Your task to perform on an android device: Go to settings Image 0: 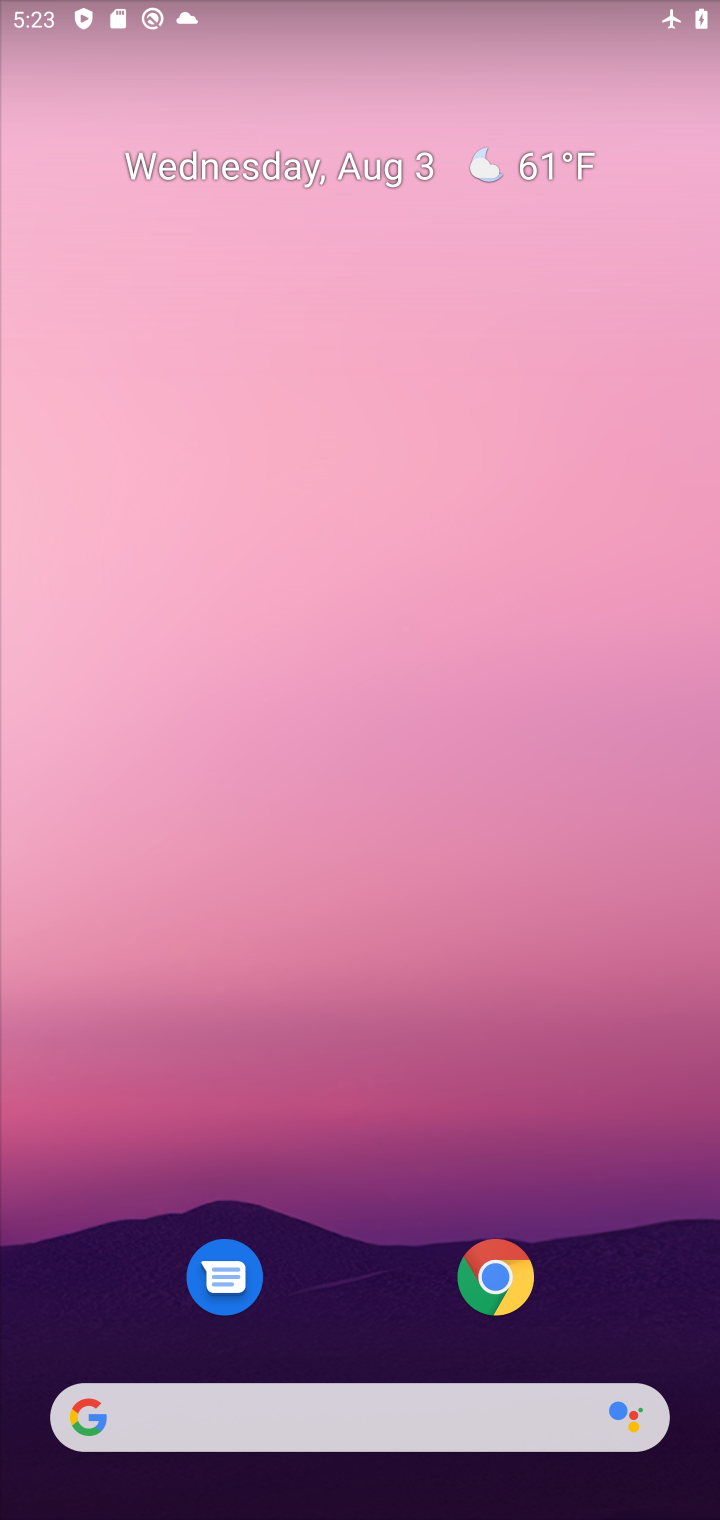
Step 0: drag from (355, 1088) to (463, 136)
Your task to perform on an android device: Go to settings Image 1: 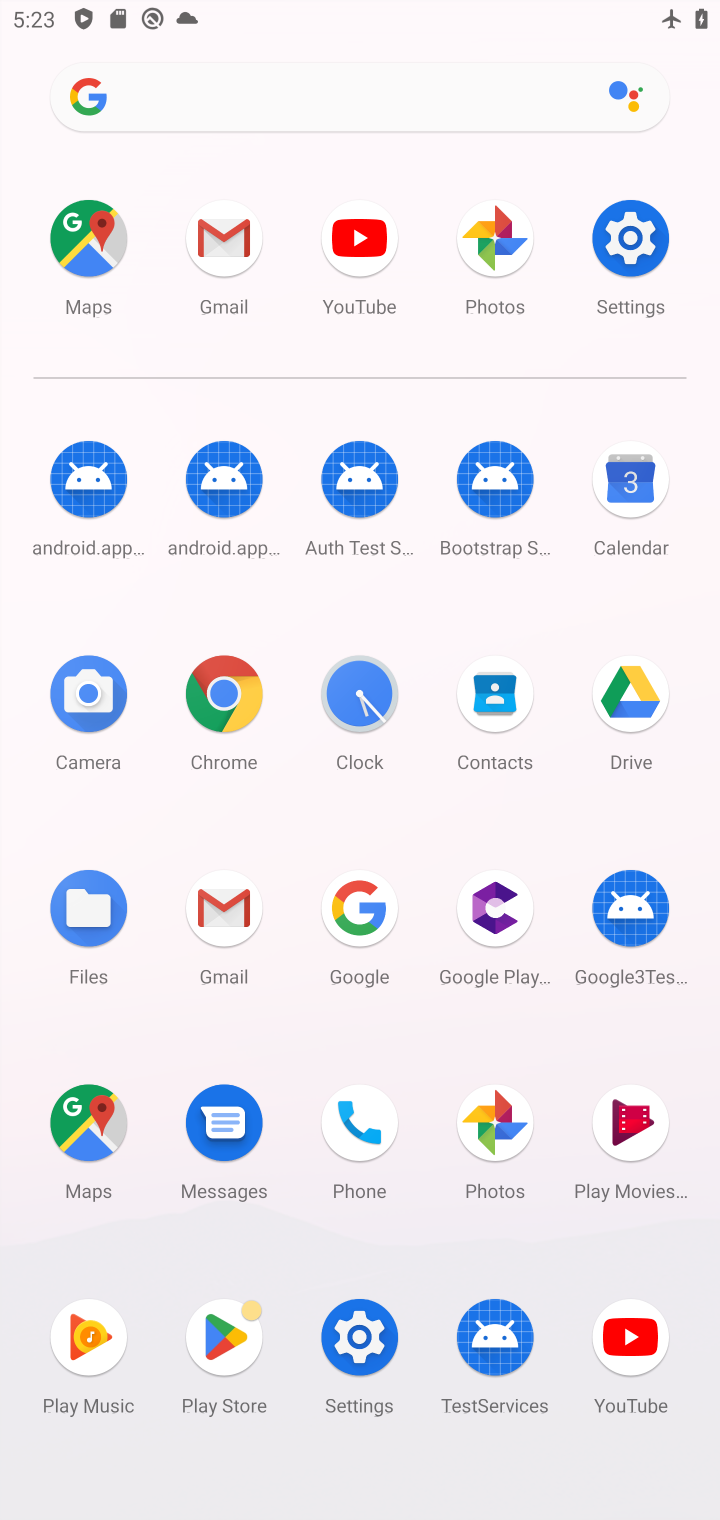
Step 1: click (617, 237)
Your task to perform on an android device: Go to settings Image 2: 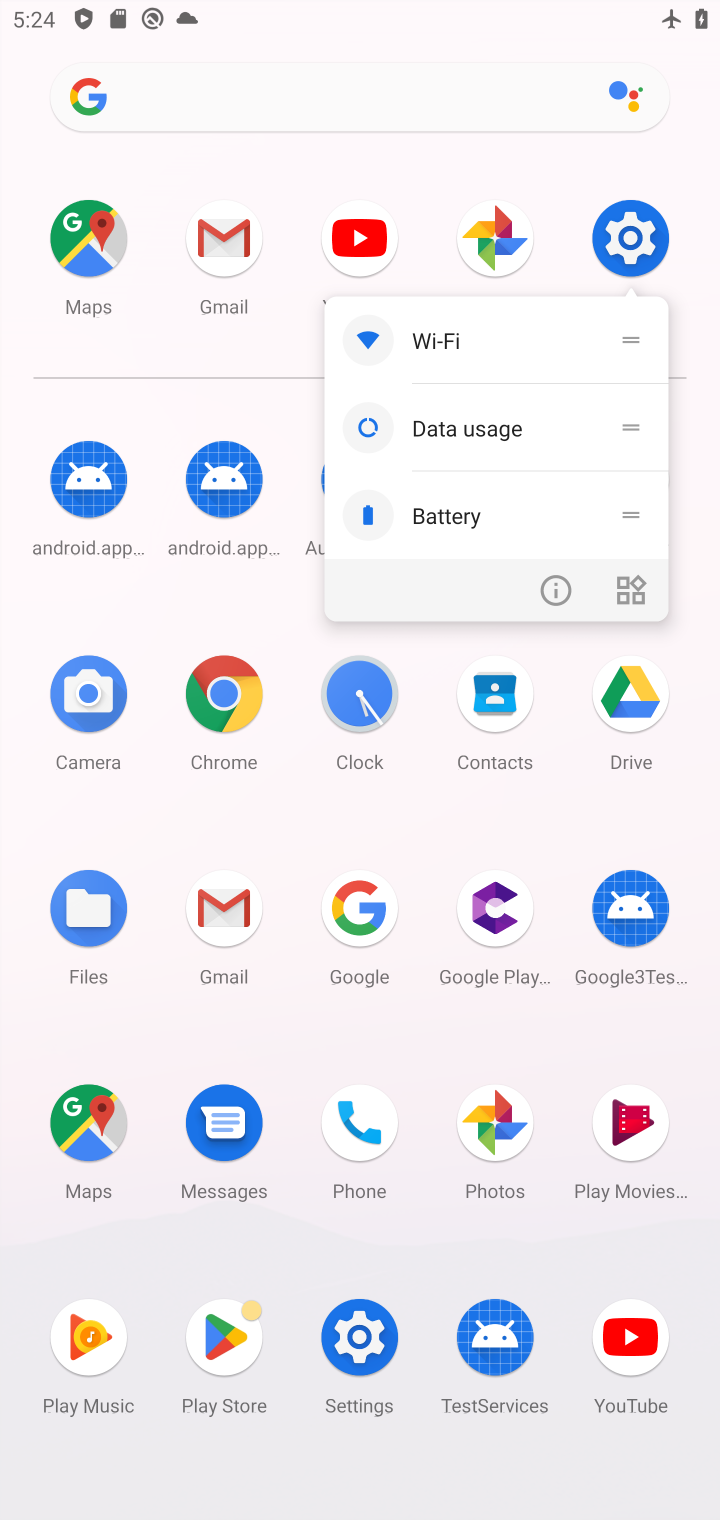
Step 2: click (635, 253)
Your task to perform on an android device: Go to settings Image 3: 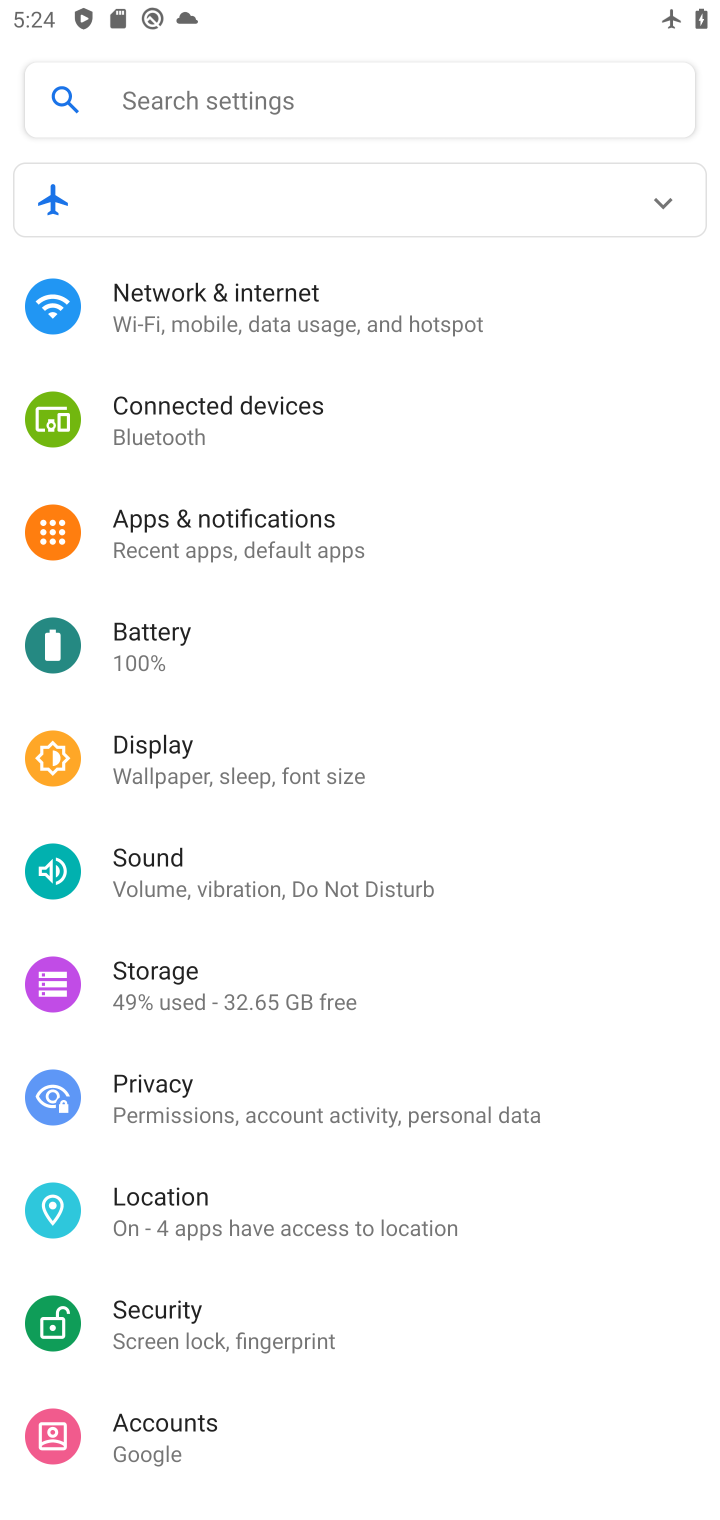
Step 3: task complete